Your task to perform on an android device: toggle javascript in the chrome app Image 0: 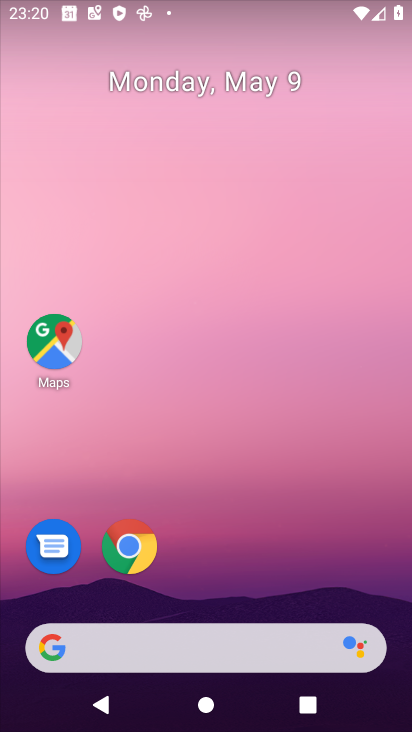
Step 0: click (149, 546)
Your task to perform on an android device: toggle javascript in the chrome app Image 1: 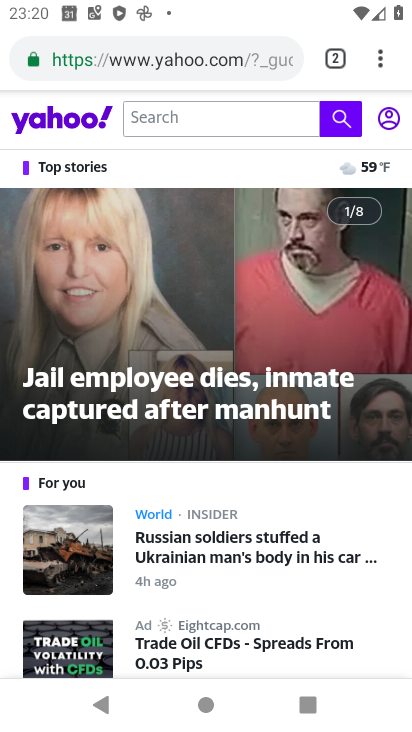
Step 1: drag from (385, 66) to (291, 592)
Your task to perform on an android device: toggle javascript in the chrome app Image 2: 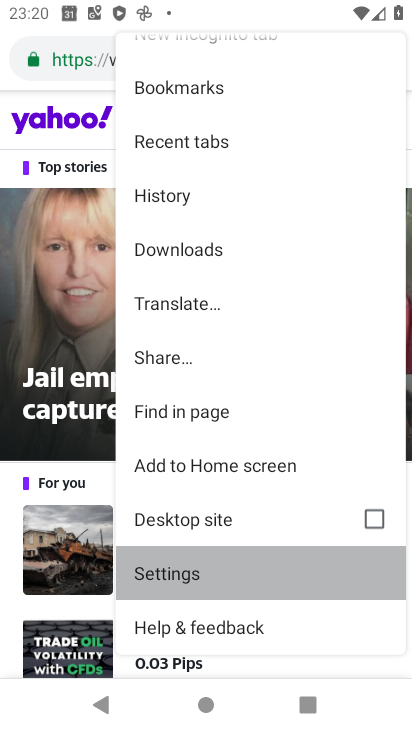
Step 2: click (291, 592)
Your task to perform on an android device: toggle javascript in the chrome app Image 3: 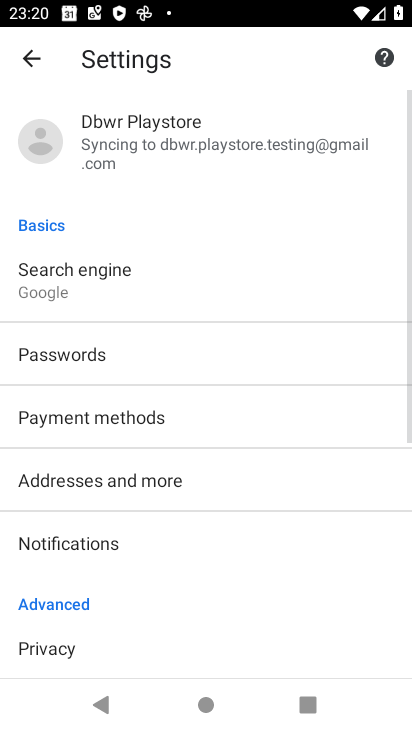
Step 3: drag from (253, 629) to (285, 126)
Your task to perform on an android device: toggle javascript in the chrome app Image 4: 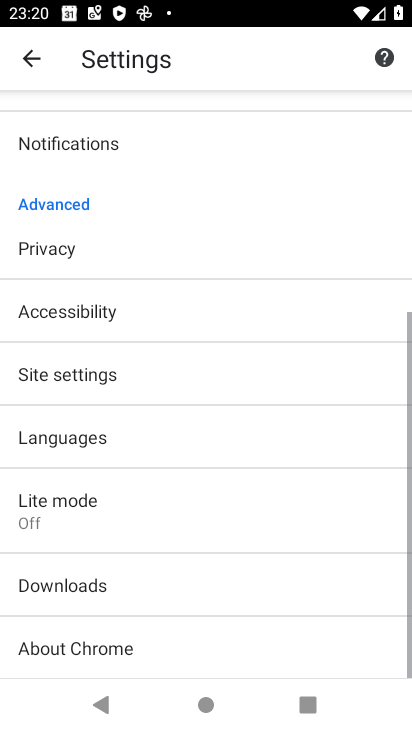
Step 4: click (145, 375)
Your task to perform on an android device: toggle javascript in the chrome app Image 5: 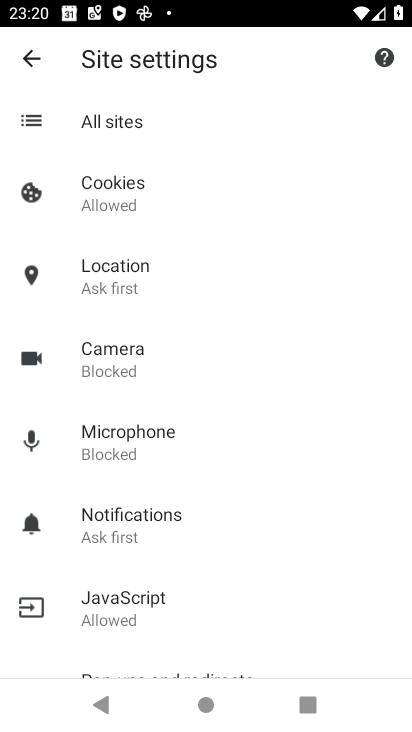
Step 5: click (203, 597)
Your task to perform on an android device: toggle javascript in the chrome app Image 6: 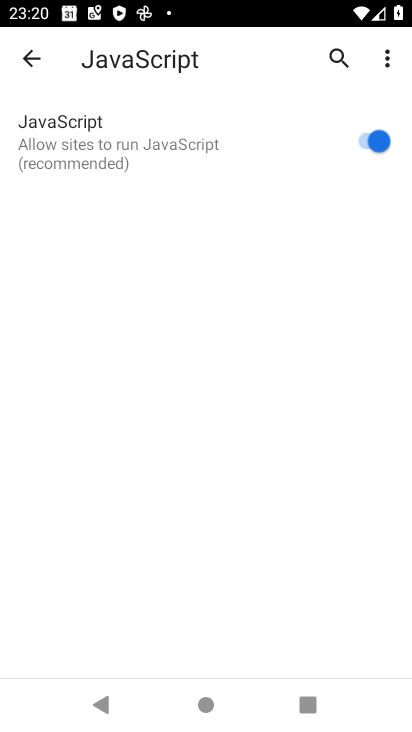
Step 6: click (378, 127)
Your task to perform on an android device: toggle javascript in the chrome app Image 7: 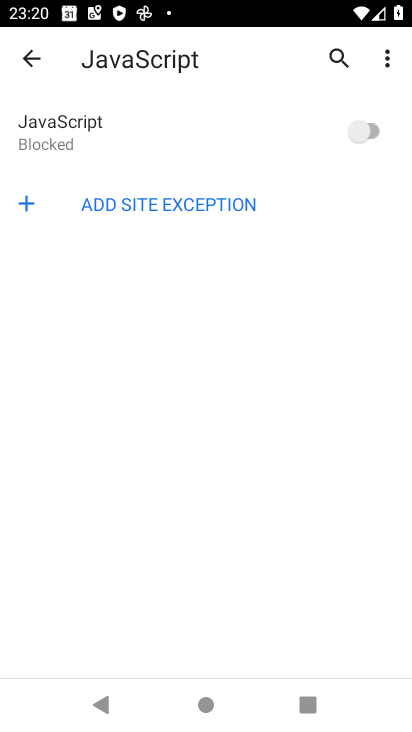
Step 7: task complete